Your task to perform on an android device: check data usage Image 0: 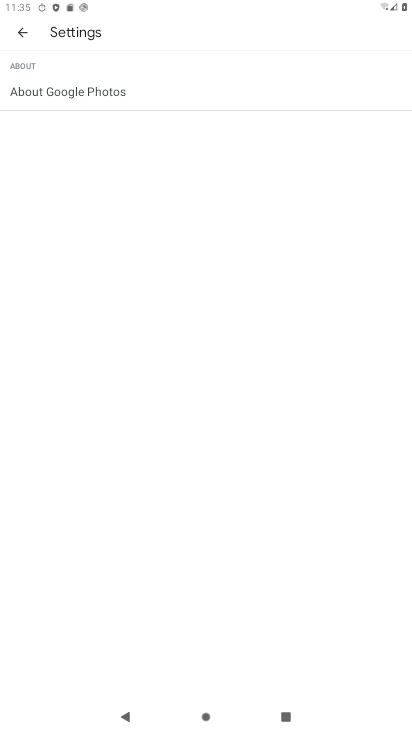
Step 0: press home button
Your task to perform on an android device: check data usage Image 1: 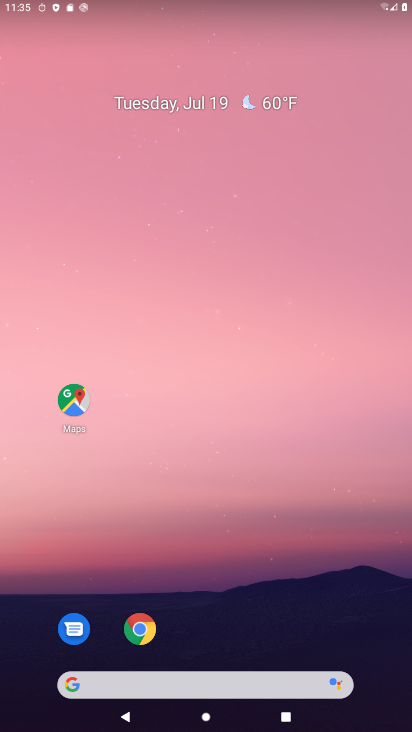
Step 1: drag from (221, 587) to (242, 109)
Your task to perform on an android device: check data usage Image 2: 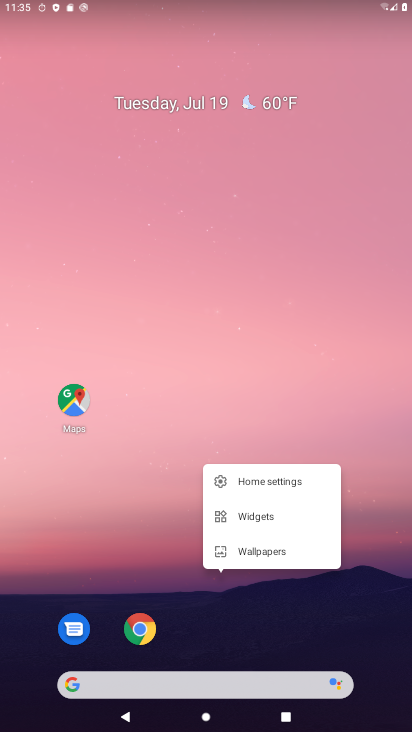
Step 2: click (298, 301)
Your task to perform on an android device: check data usage Image 3: 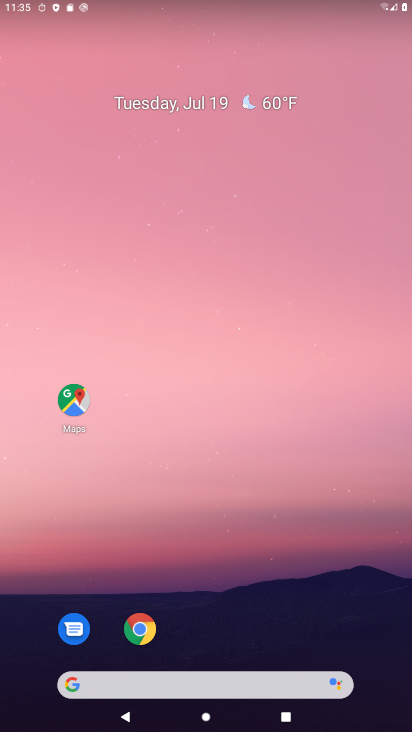
Step 3: drag from (291, 605) to (292, 2)
Your task to perform on an android device: check data usage Image 4: 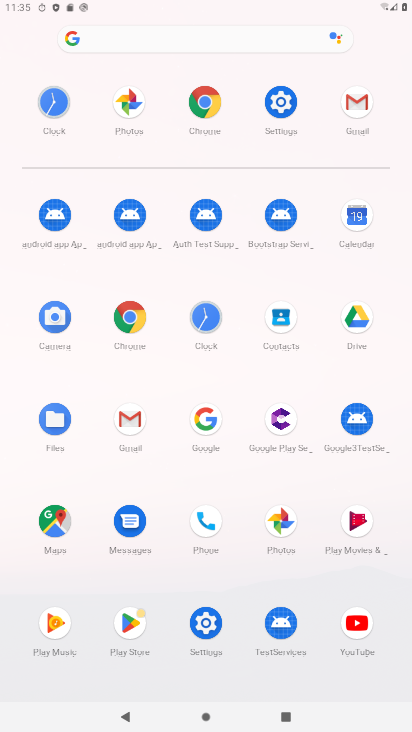
Step 4: click (286, 99)
Your task to perform on an android device: check data usage Image 5: 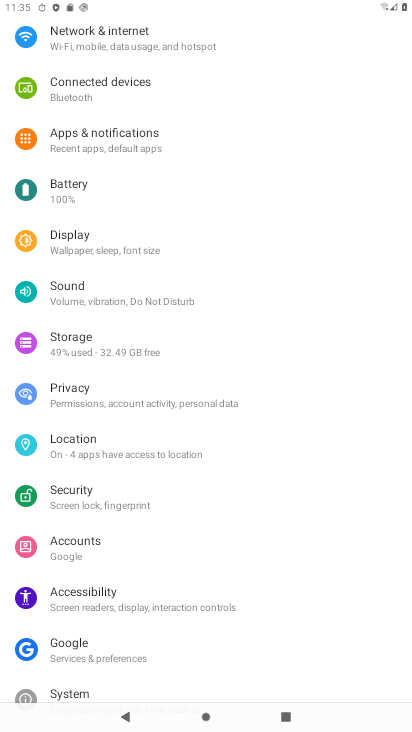
Step 5: click (181, 49)
Your task to perform on an android device: check data usage Image 6: 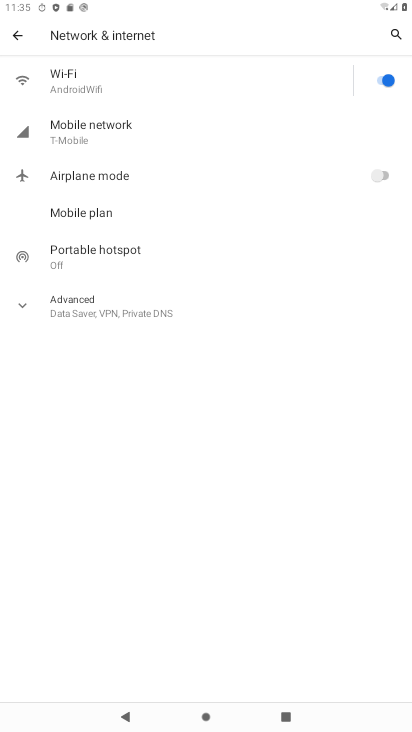
Step 6: click (124, 134)
Your task to perform on an android device: check data usage Image 7: 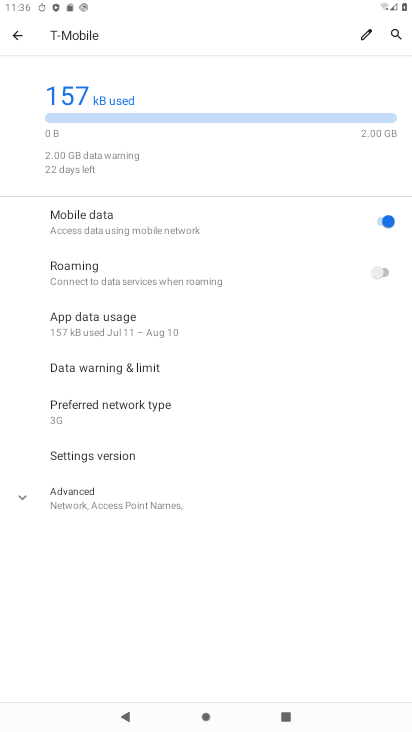
Step 7: click (143, 334)
Your task to perform on an android device: check data usage Image 8: 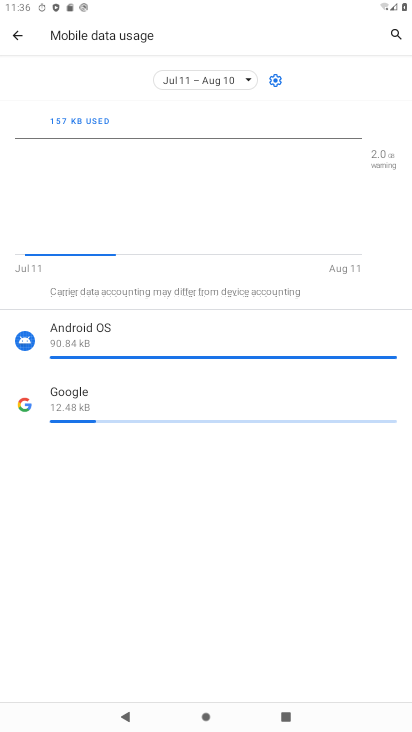
Step 8: task complete